Your task to perform on an android device: Add logitech g903 to the cart on ebay Image 0: 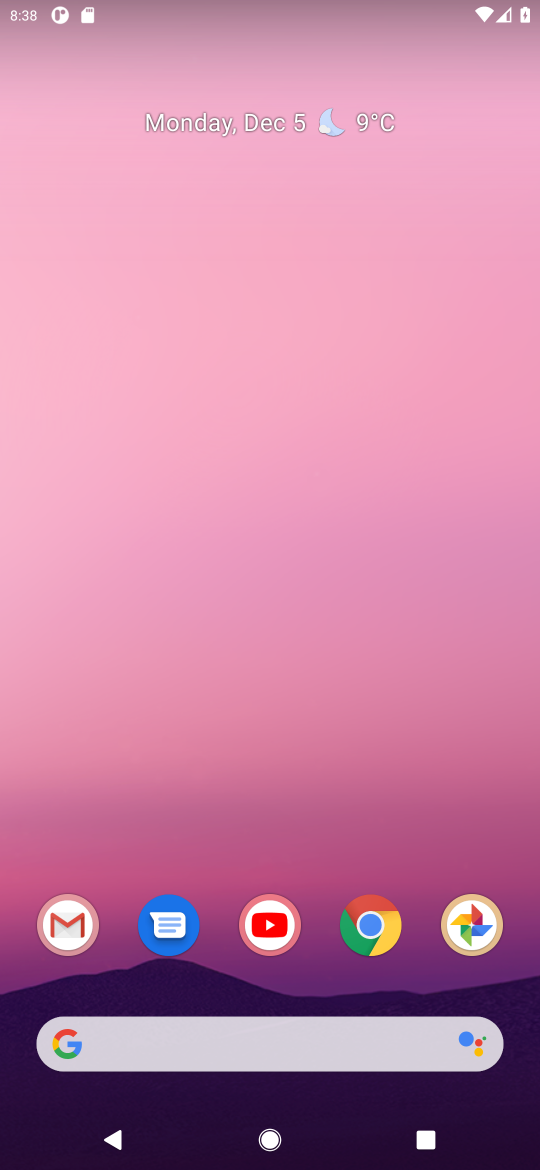
Step 0: click (372, 933)
Your task to perform on an android device: Add logitech g903 to the cart on ebay Image 1: 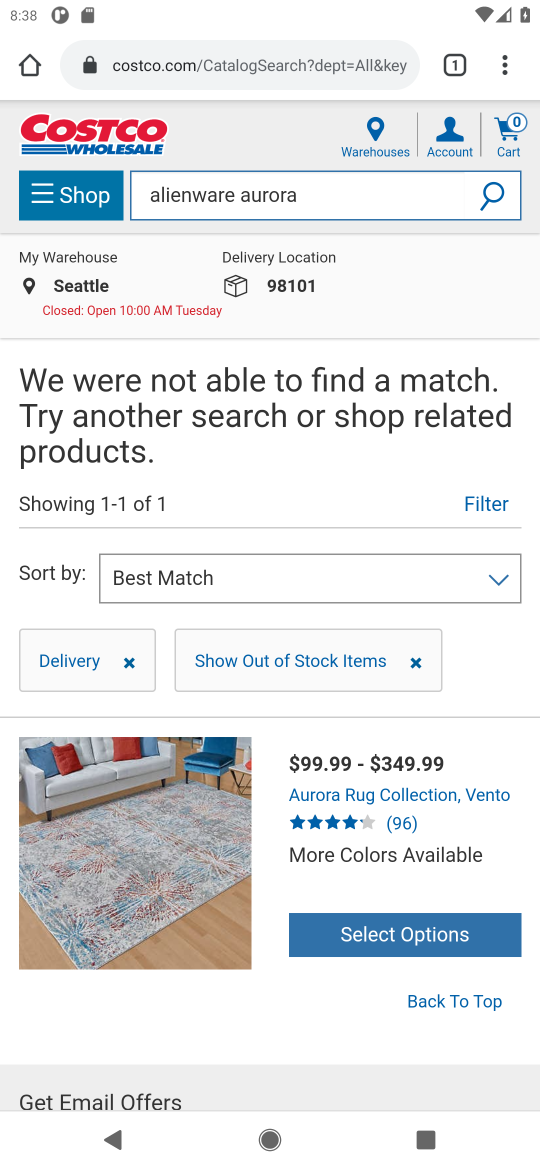
Step 1: click (209, 69)
Your task to perform on an android device: Add logitech g903 to the cart on ebay Image 2: 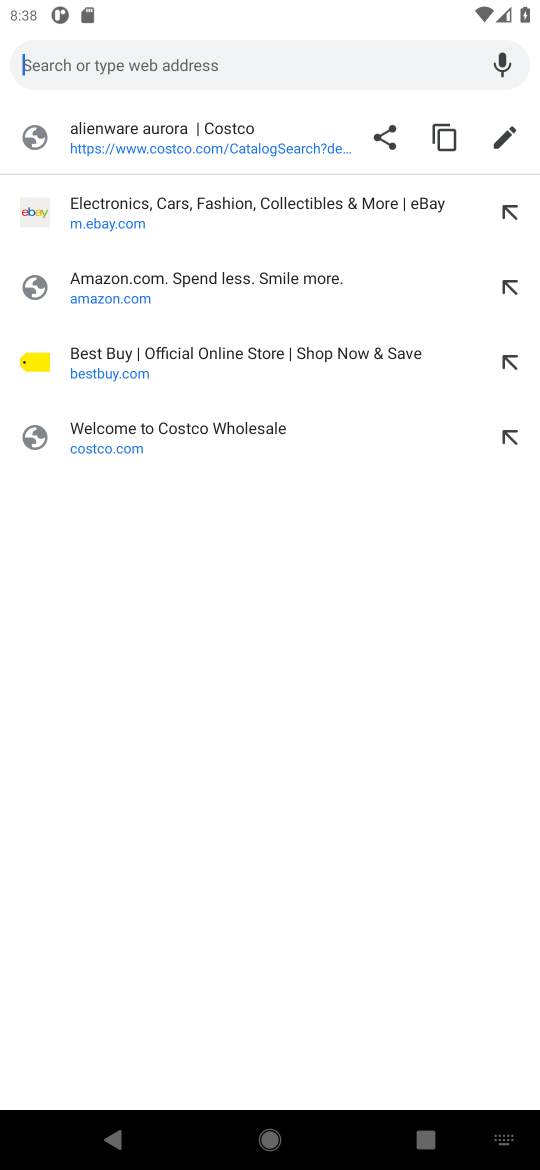
Step 2: click (100, 224)
Your task to perform on an android device: Add logitech g903 to the cart on ebay Image 3: 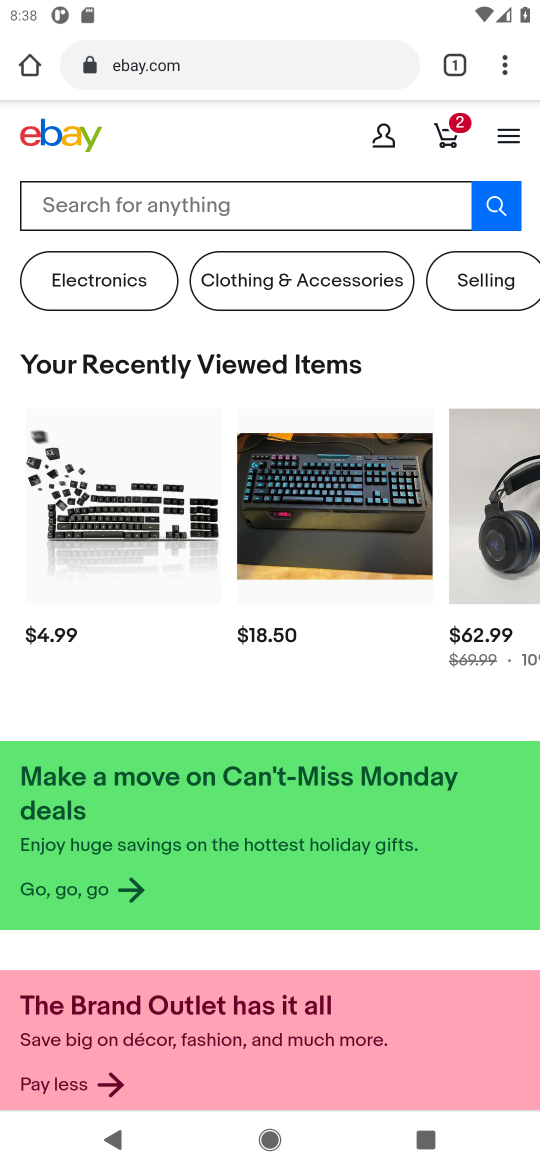
Step 3: click (148, 215)
Your task to perform on an android device: Add logitech g903 to the cart on ebay Image 4: 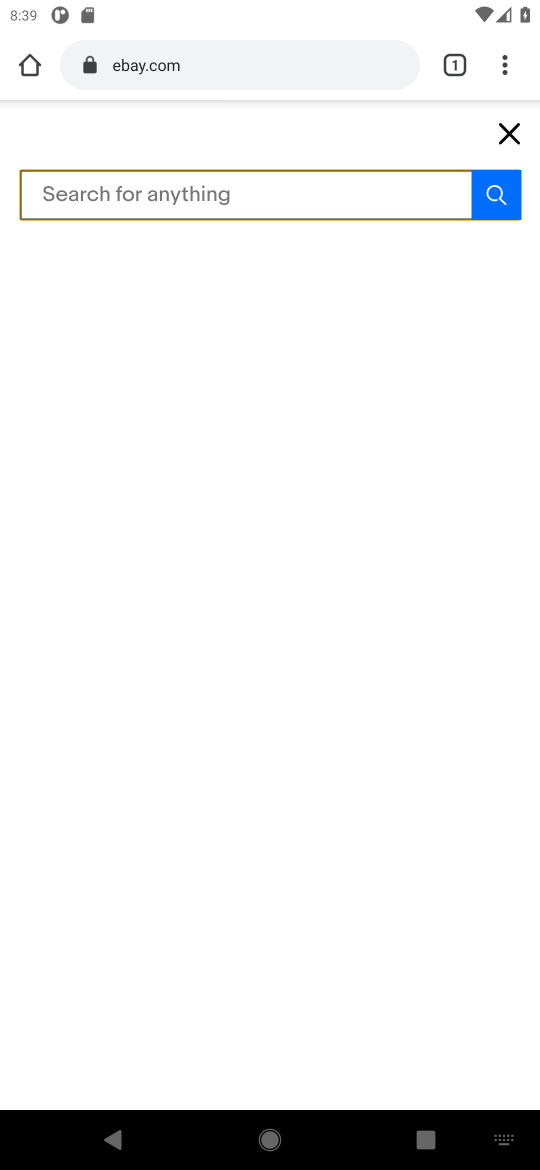
Step 4: type "logitech g903"
Your task to perform on an android device: Add logitech g903 to the cart on ebay Image 5: 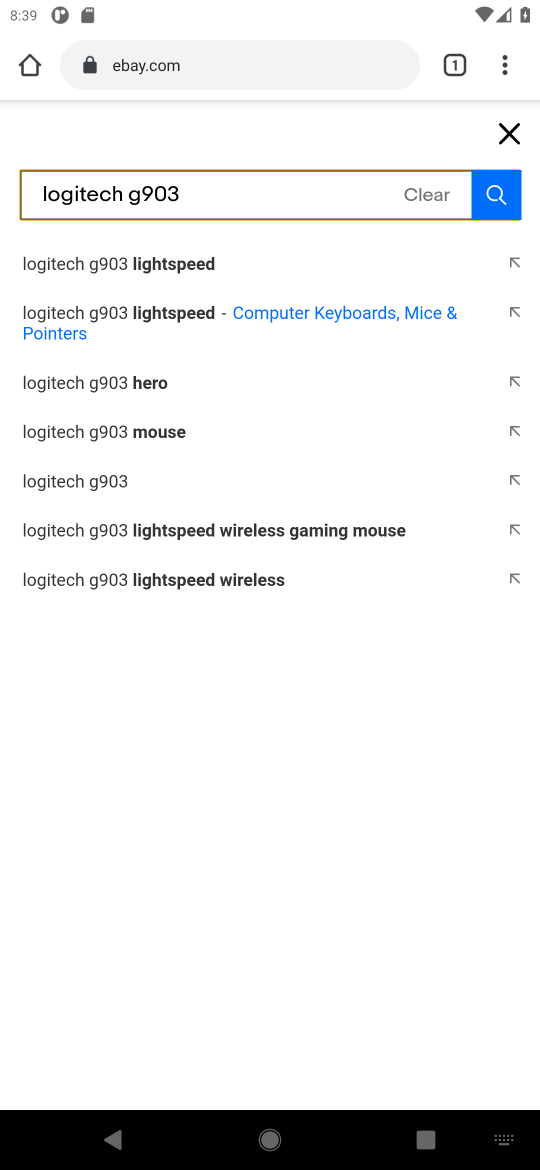
Step 5: click (73, 486)
Your task to perform on an android device: Add logitech g903 to the cart on ebay Image 6: 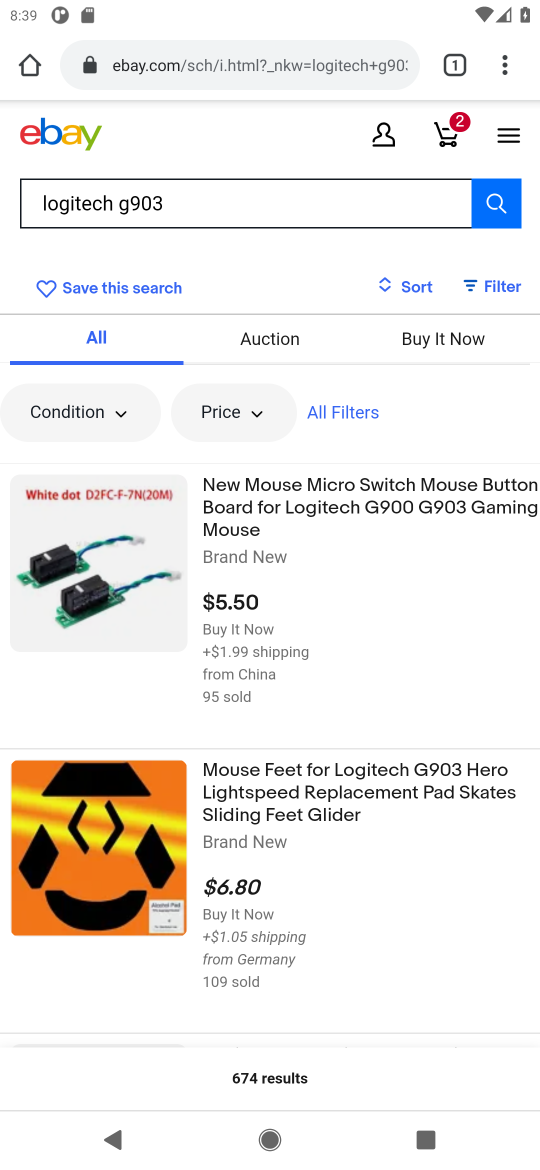
Step 6: click (313, 506)
Your task to perform on an android device: Add logitech g903 to the cart on ebay Image 7: 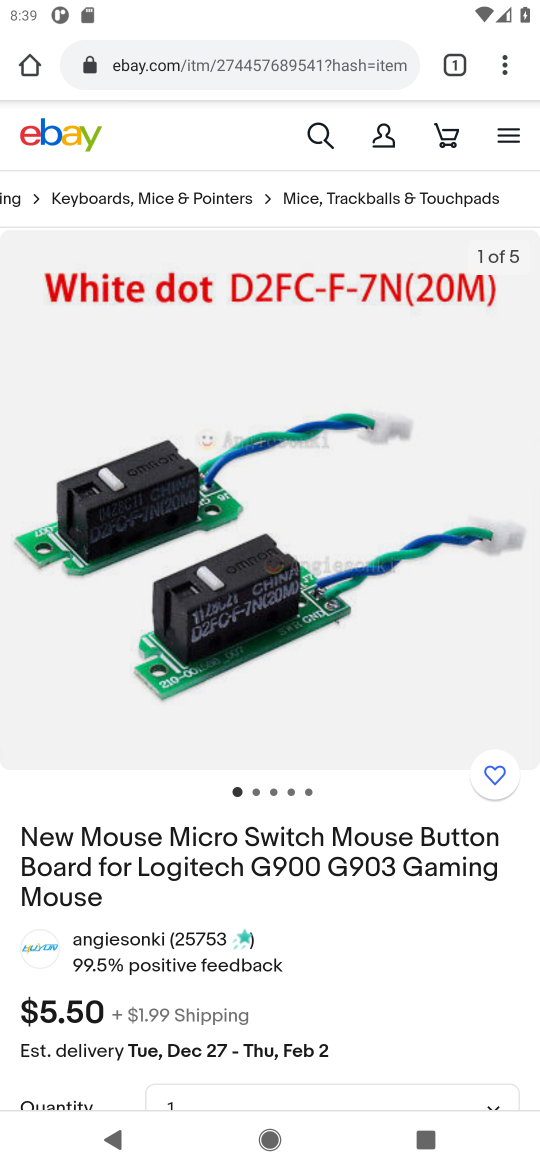
Step 7: drag from (302, 679) to (315, 335)
Your task to perform on an android device: Add logitech g903 to the cart on ebay Image 8: 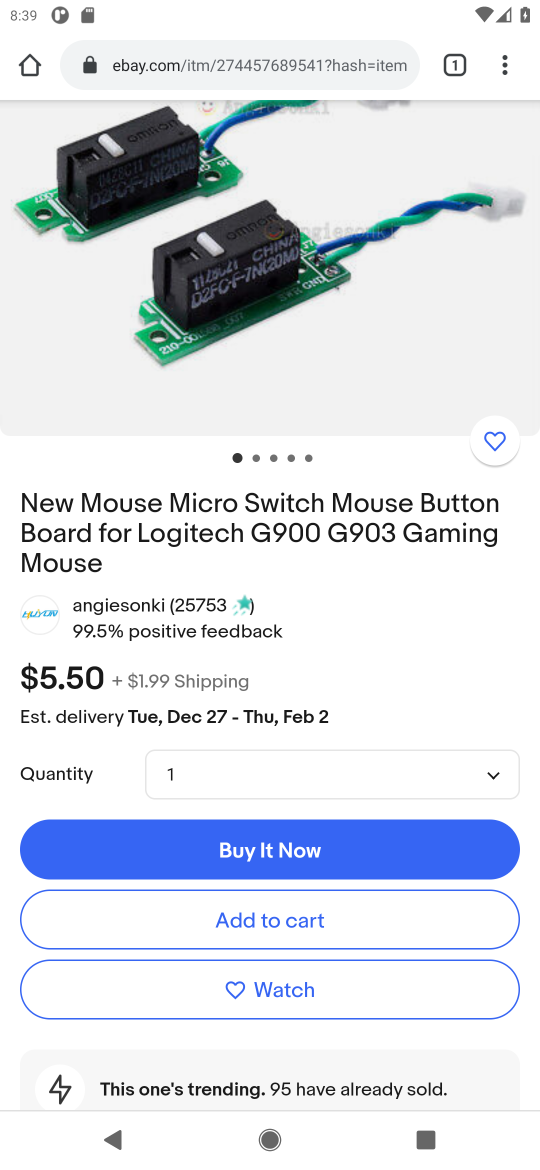
Step 8: click (223, 920)
Your task to perform on an android device: Add logitech g903 to the cart on ebay Image 9: 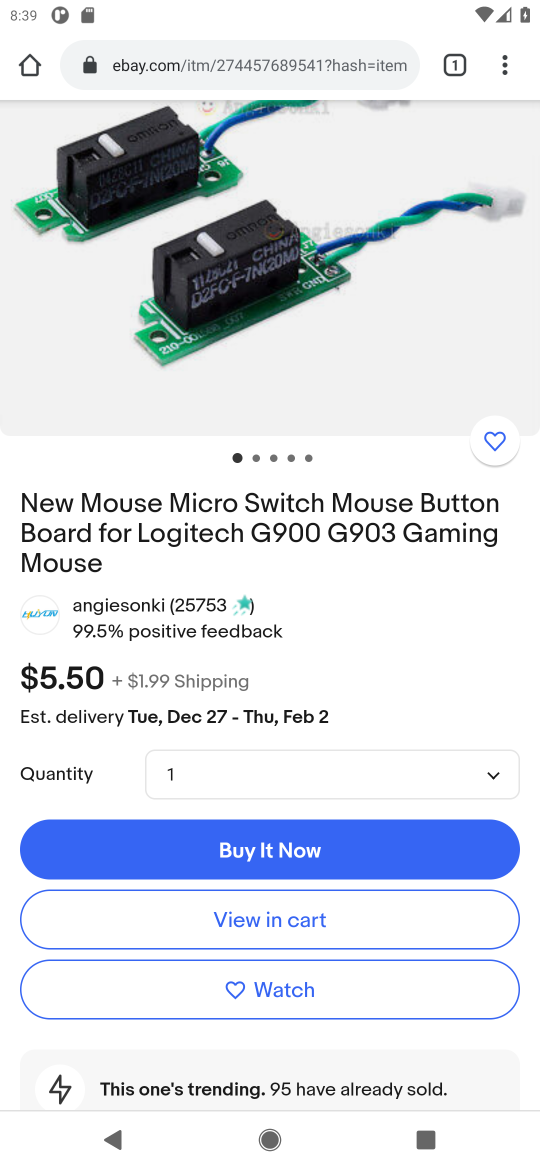
Step 9: task complete